Your task to perform on an android device: turn on airplane mode Image 0: 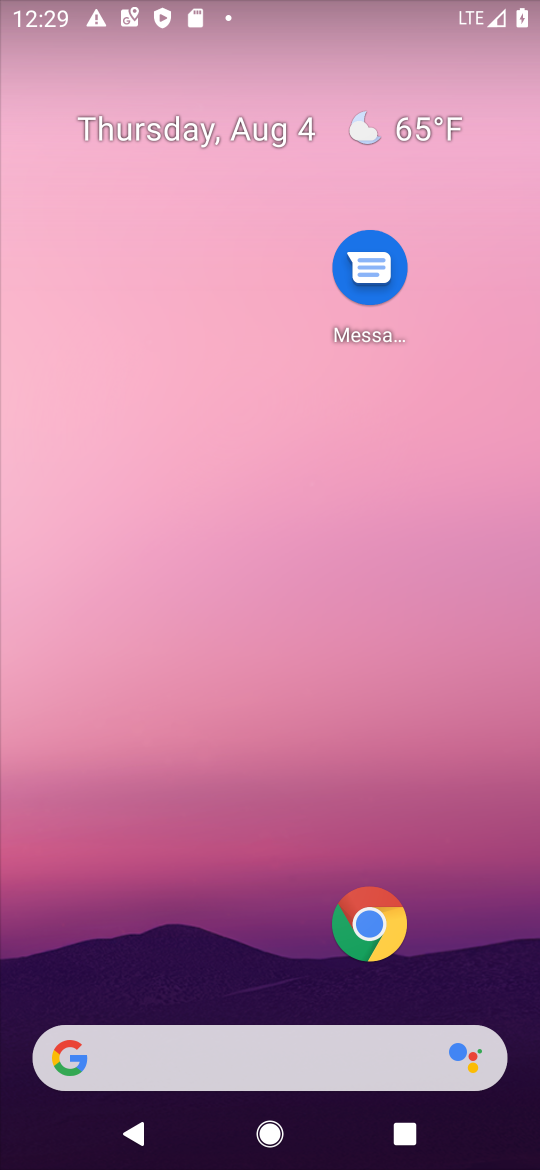
Step 0: drag from (93, 1011) to (333, 240)
Your task to perform on an android device: turn on airplane mode Image 1: 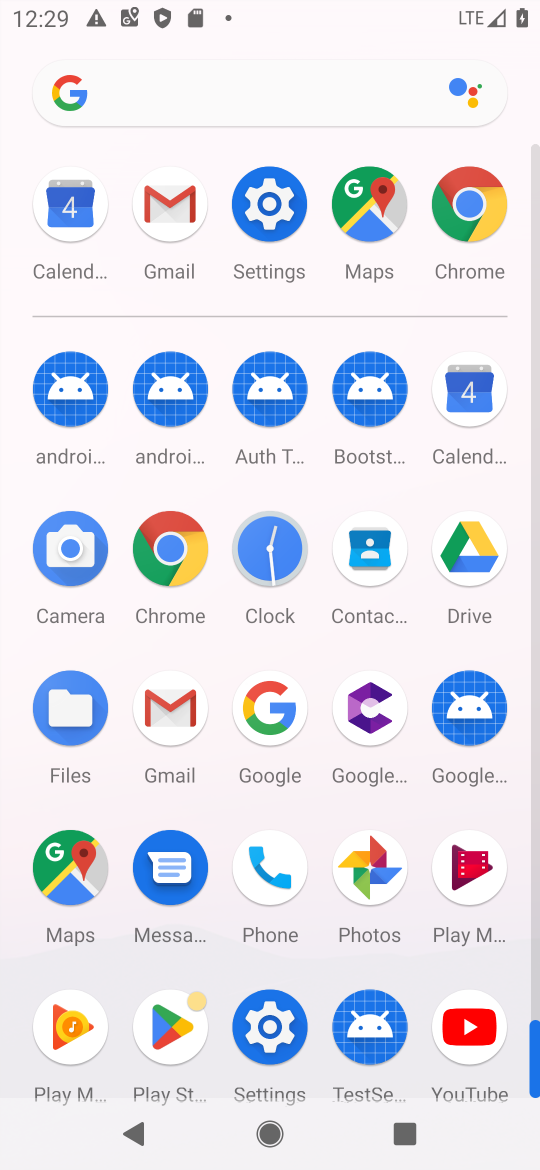
Step 1: click (272, 993)
Your task to perform on an android device: turn on airplane mode Image 2: 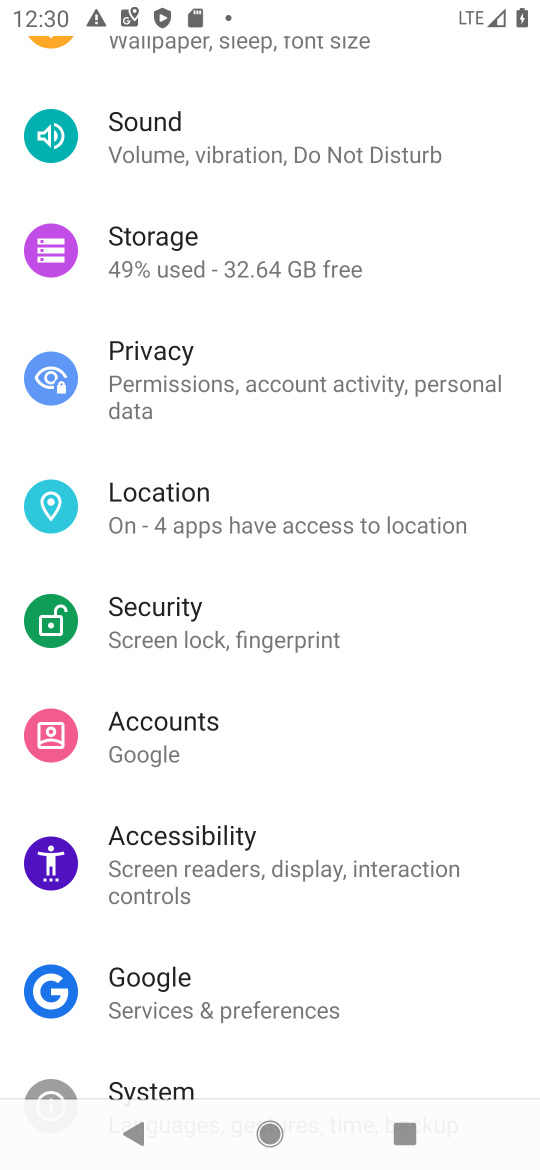
Step 2: drag from (324, 242) to (326, 827)
Your task to perform on an android device: turn on airplane mode Image 3: 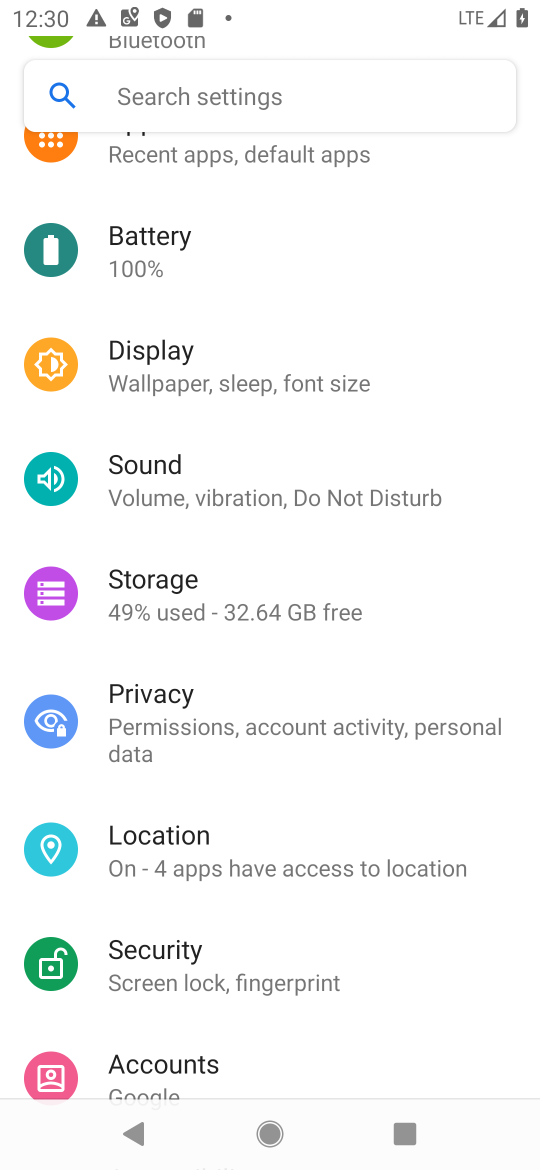
Step 3: drag from (372, 307) to (381, 909)
Your task to perform on an android device: turn on airplane mode Image 4: 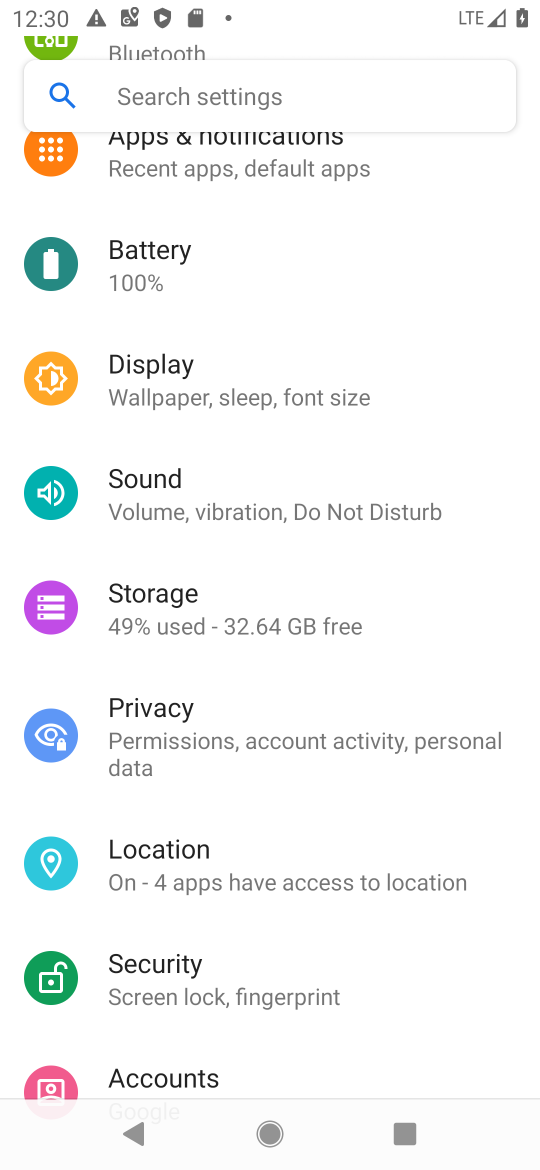
Step 4: drag from (359, 324) to (346, 1059)
Your task to perform on an android device: turn on airplane mode Image 5: 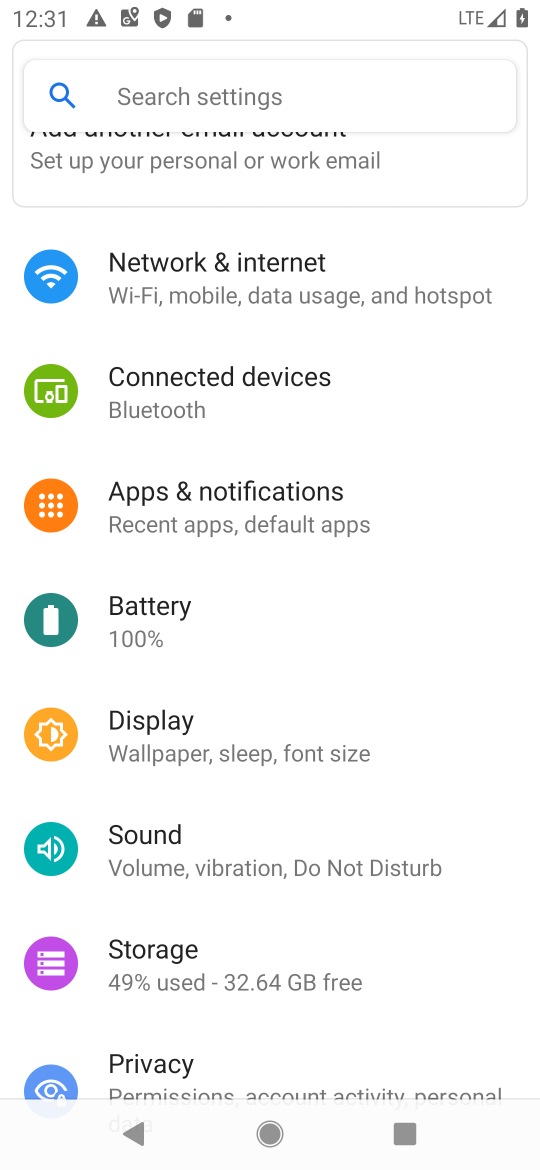
Step 5: drag from (349, 539) to (363, 1169)
Your task to perform on an android device: turn on airplane mode Image 6: 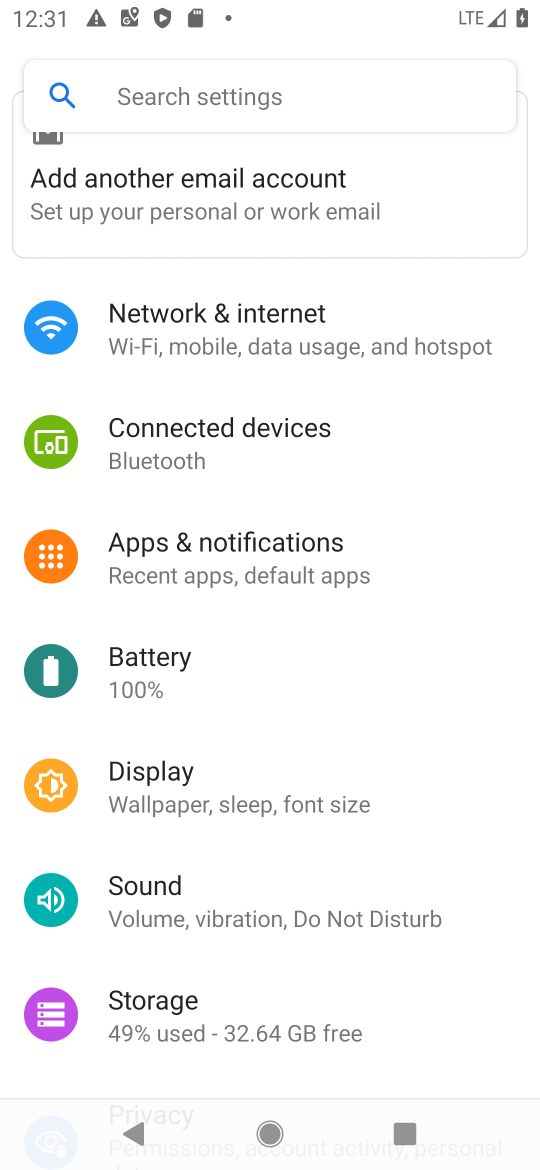
Step 6: click (296, 346)
Your task to perform on an android device: turn on airplane mode Image 7: 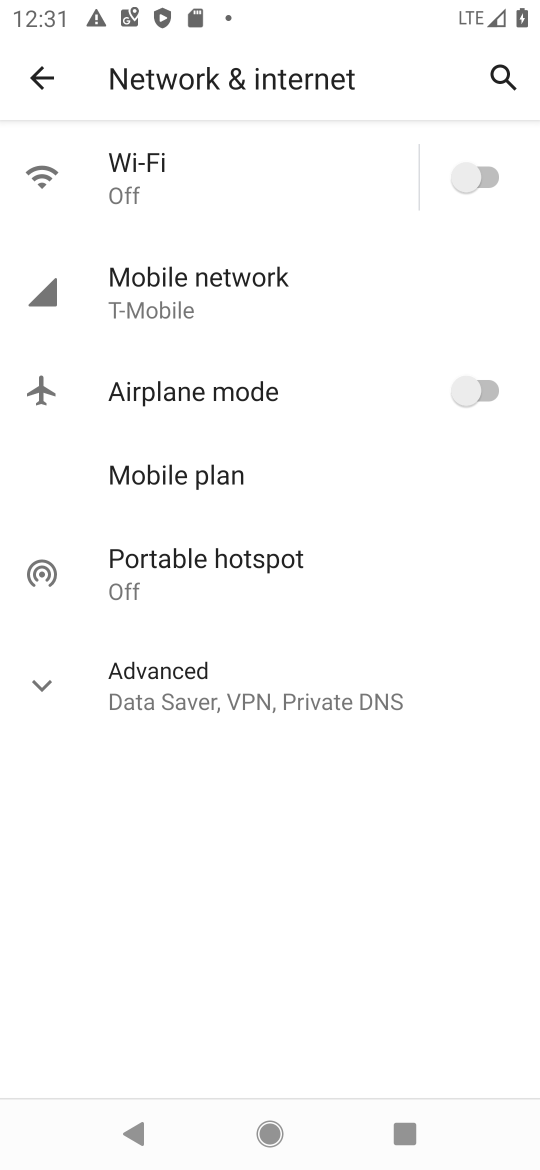
Step 7: click (479, 383)
Your task to perform on an android device: turn on airplane mode Image 8: 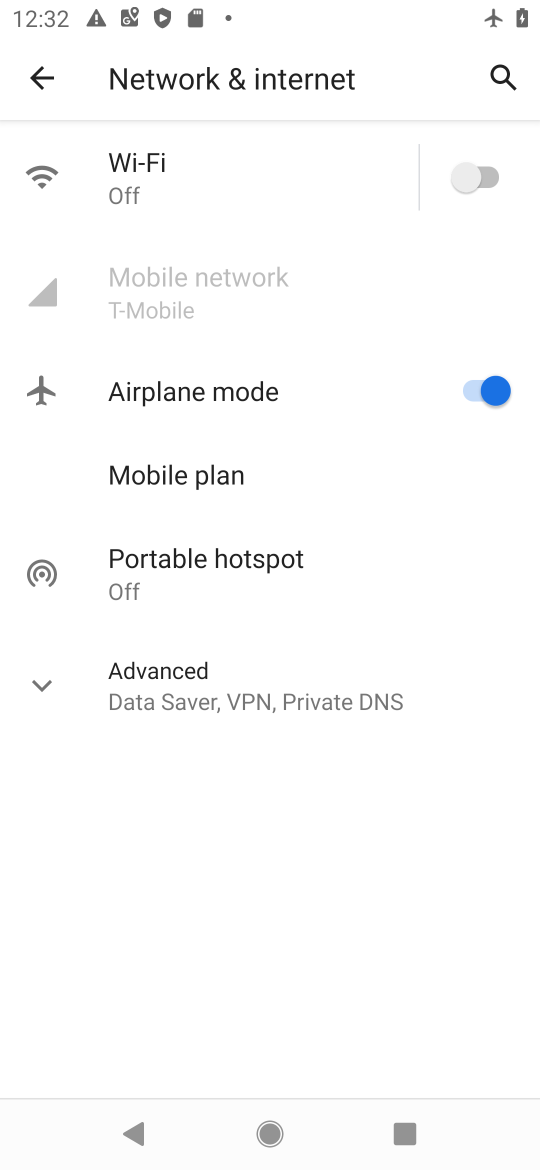
Step 8: task complete